Your task to perform on an android device: open app "Upside-Cash back on gas & food" (install if not already installed) Image 0: 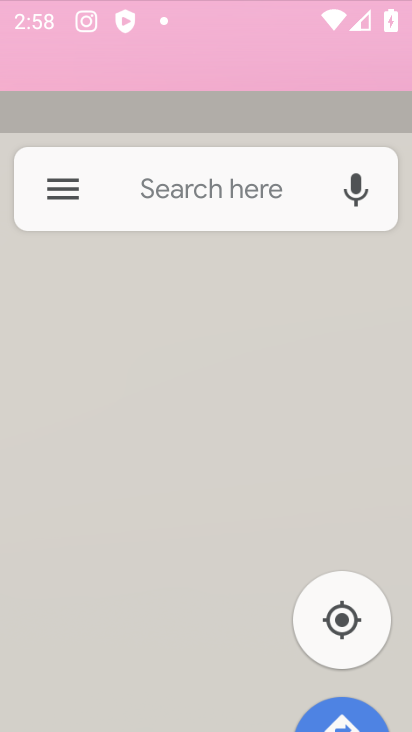
Step 0: drag from (230, 415) to (294, 4)
Your task to perform on an android device: open app "Upside-Cash back on gas & food" (install if not already installed) Image 1: 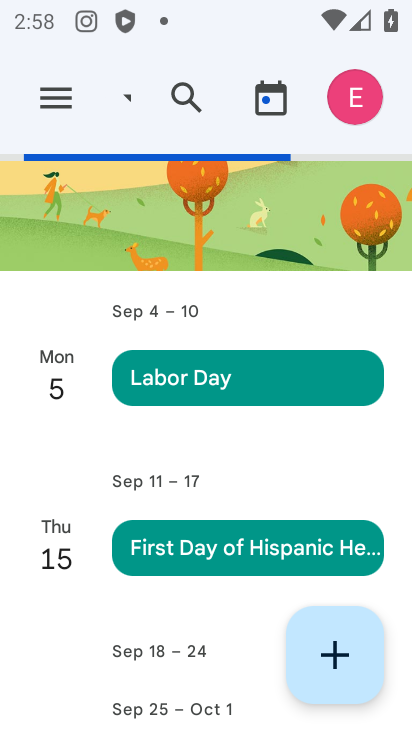
Step 1: press home button
Your task to perform on an android device: open app "Upside-Cash back on gas & food" (install if not already installed) Image 2: 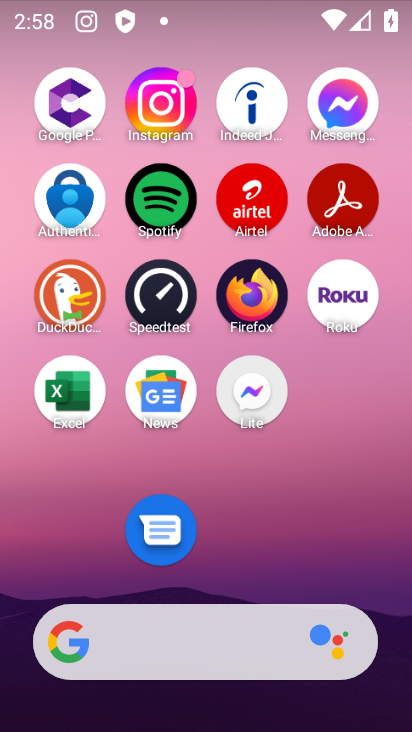
Step 2: drag from (214, 558) to (256, 4)
Your task to perform on an android device: open app "Upside-Cash back on gas & food" (install if not already installed) Image 3: 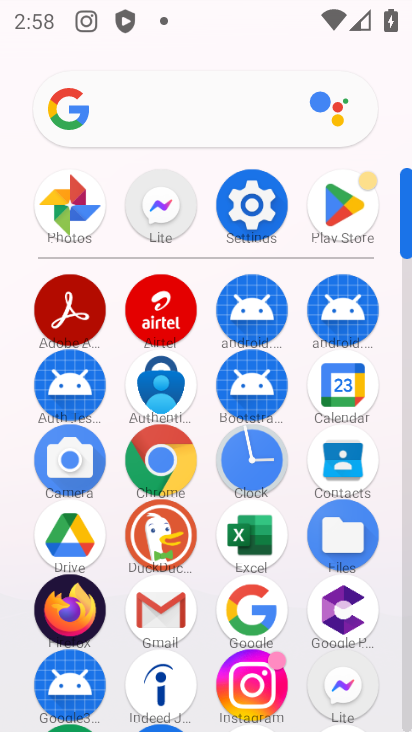
Step 3: click (342, 210)
Your task to perform on an android device: open app "Upside-Cash back on gas & food" (install if not already installed) Image 4: 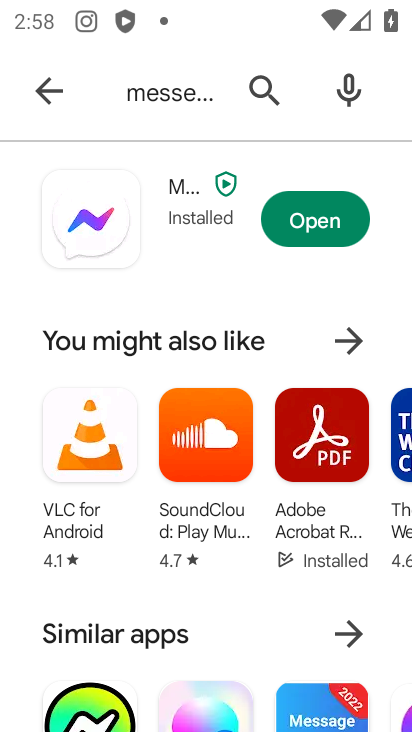
Step 4: click (173, 101)
Your task to perform on an android device: open app "Upside-Cash back on gas & food" (install if not already installed) Image 5: 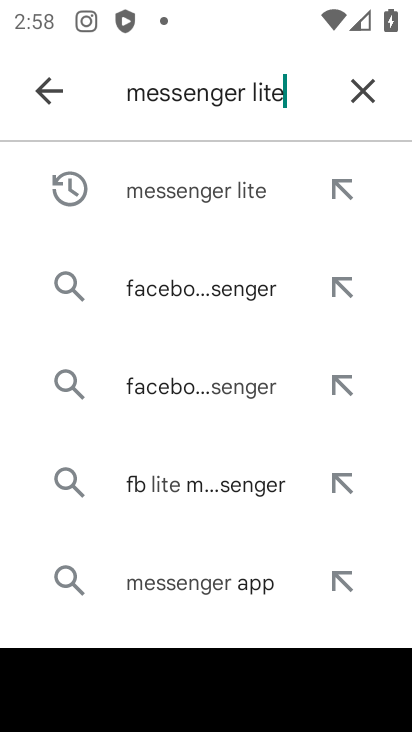
Step 5: click (367, 91)
Your task to perform on an android device: open app "Upside-Cash back on gas & food" (install if not already installed) Image 6: 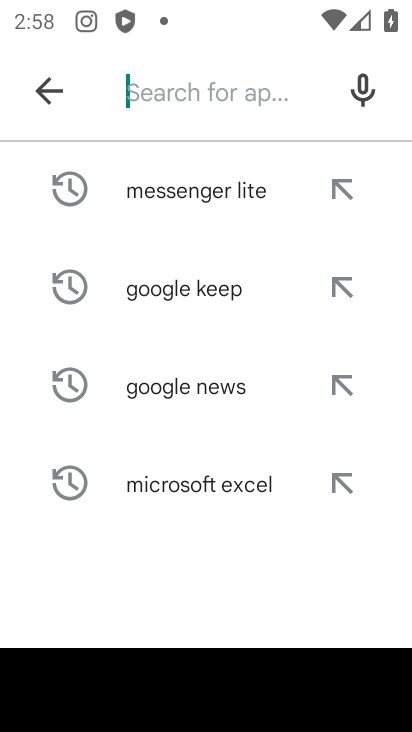
Step 6: type "upside "
Your task to perform on an android device: open app "Upside-Cash back on gas & food" (install if not already installed) Image 7: 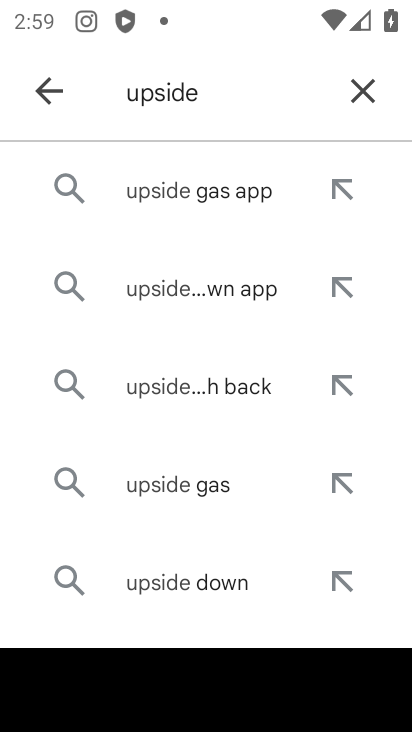
Step 7: click (206, 394)
Your task to perform on an android device: open app "Upside-Cash back on gas & food" (install if not already installed) Image 8: 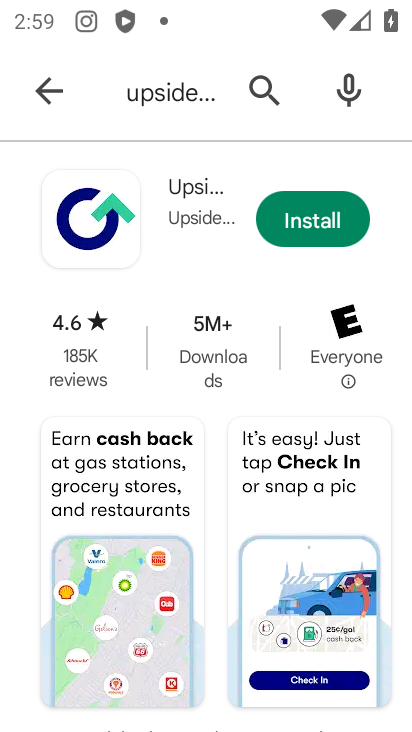
Step 8: click (319, 221)
Your task to perform on an android device: open app "Upside-Cash back on gas & food" (install if not already installed) Image 9: 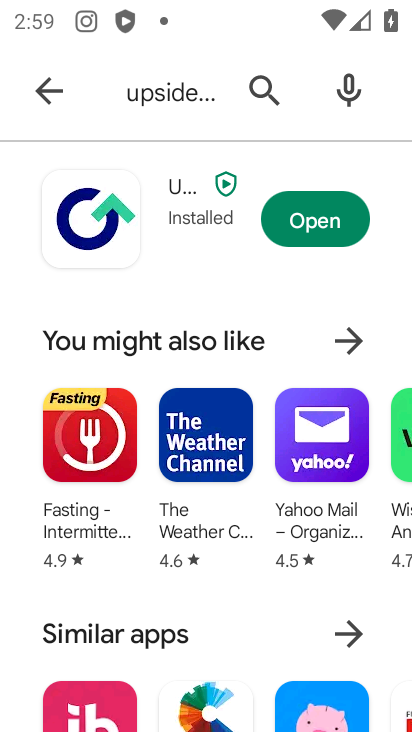
Step 9: click (313, 216)
Your task to perform on an android device: open app "Upside-Cash back on gas & food" (install if not already installed) Image 10: 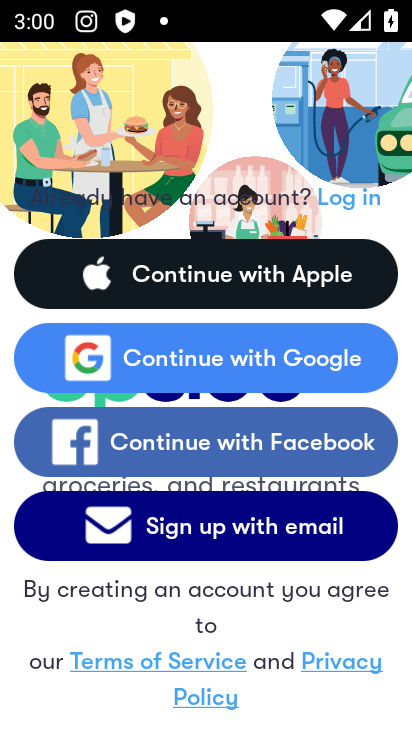
Step 10: click (280, 340)
Your task to perform on an android device: open app "Upside-Cash back on gas & food" (install if not already installed) Image 11: 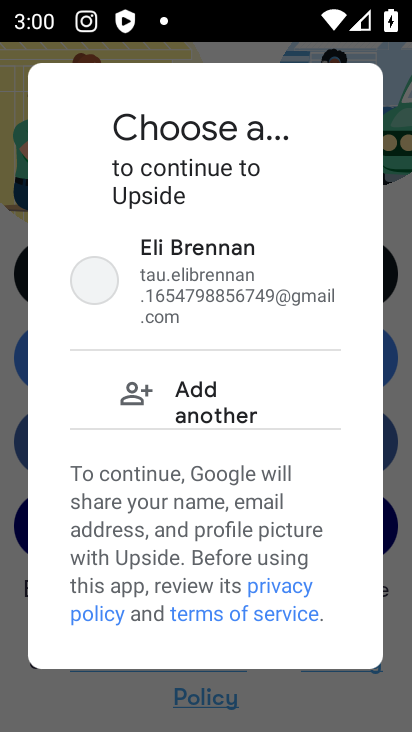
Step 11: click (230, 297)
Your task to perform on an android device: open app "Upside-Cash back on gas & food" (install if not already installed) Image 12: 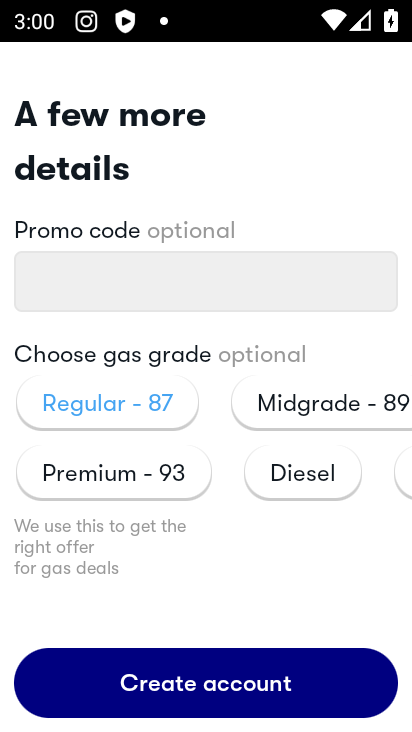
Step 12: task complete